Your task to perform on an android device: turn vacation reply on in the gmail app Image 0: 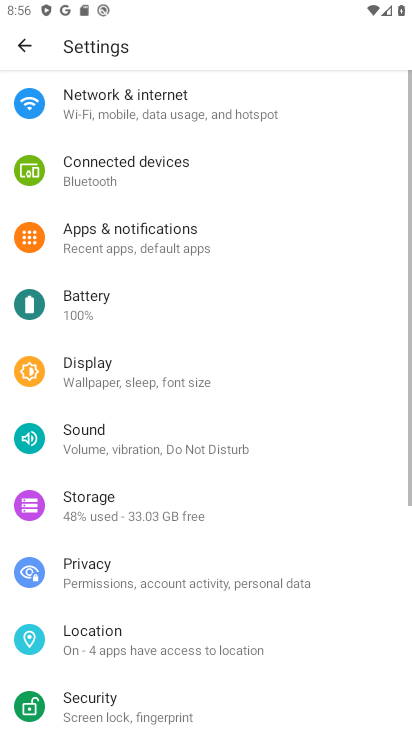
Step 0: press home button
Your task to perform on an android device: turn vacation reply on in the gmail app Image 1: 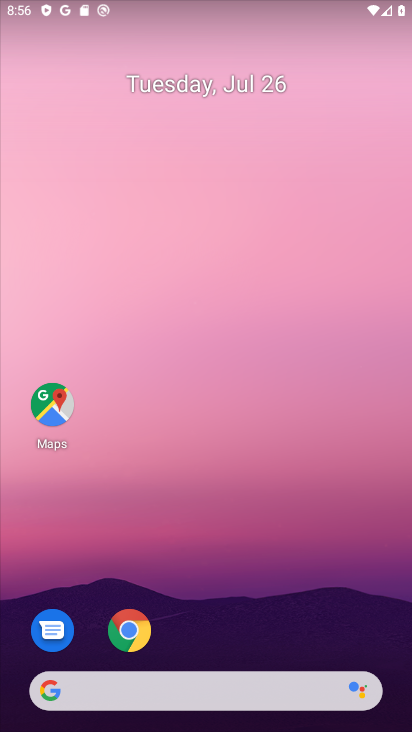
Step 1: drag from (244, 647) to (164, 63)
Your task to perform on an android device: turn vacation reply on in the gmail app Image 2: 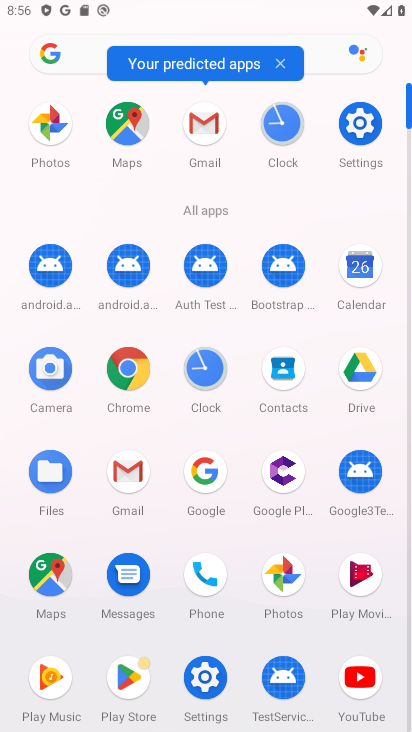
Step 2: click (209, 139)
Your task to perform on an android device: turn vacation reply on in the gmail app Image 3: 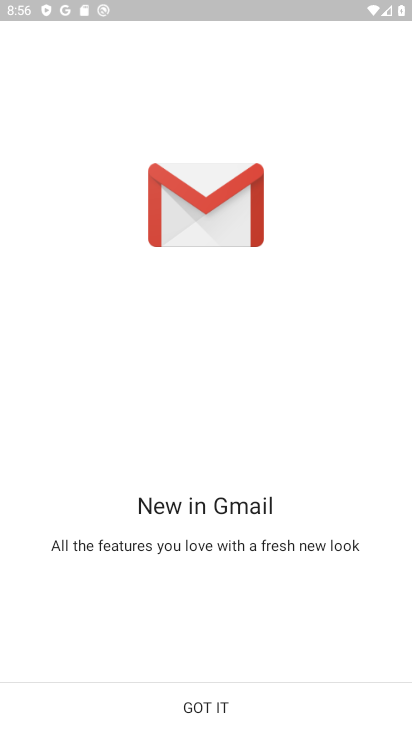
Step 3: click (216, 708)
Your task to perform on an android device: turn vacation reply on in the gmail app Image 4: 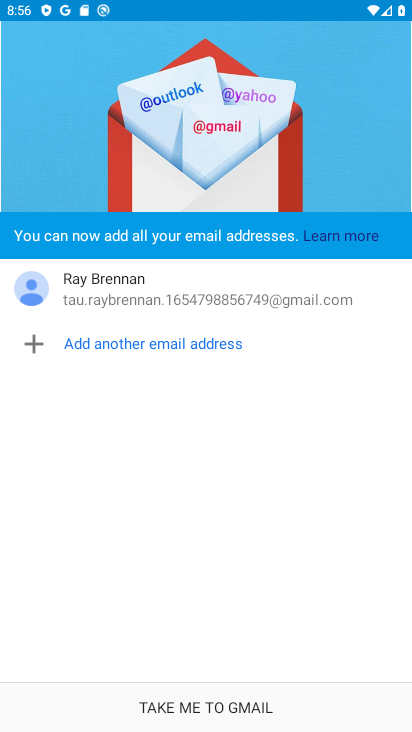
Step 4: click (236, 698)
Your task to perform on an android device: turn vacation reply on in the gmail app Image 5: 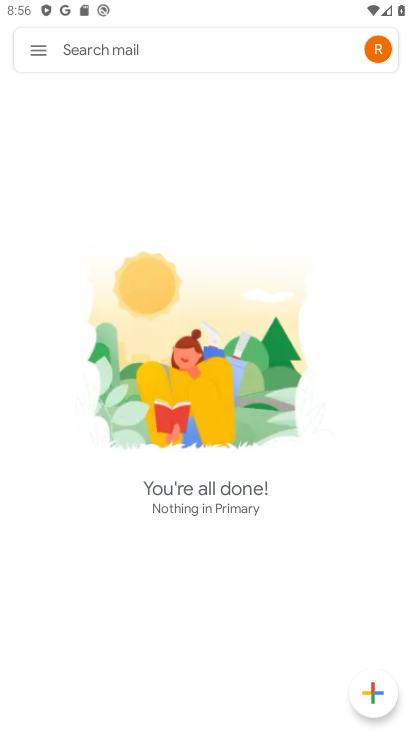
Step 5: click (38, 56)
Your task to perform on an android device: turn vacation reply on in the gmail app Image 6: 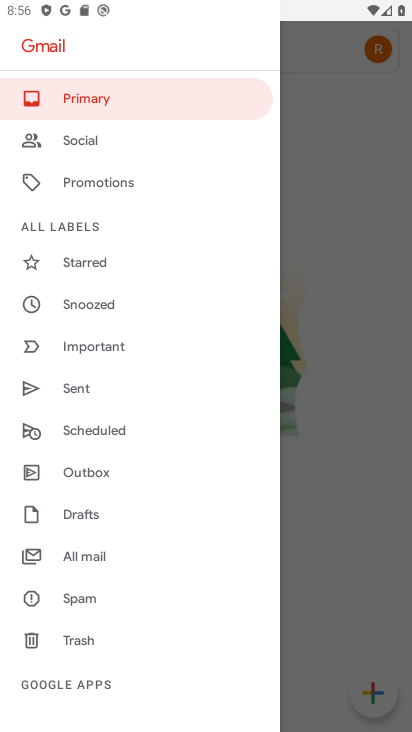
Step 6: drag from (133, 687) to (46, 260)
Your task to perform on an android device: turn vacation reply on in the gmail app Image 7: 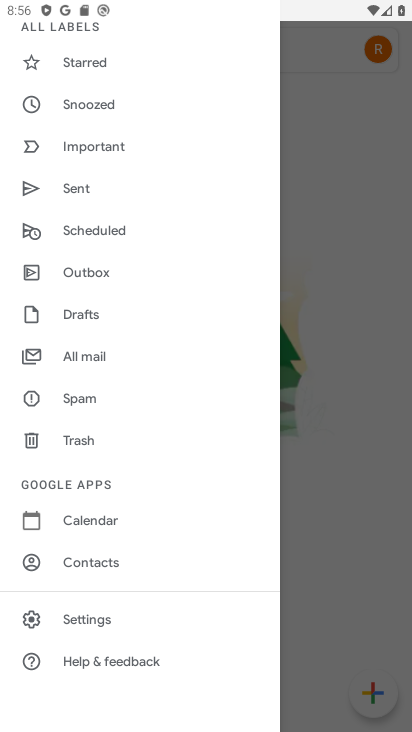
Step 7: click (89, 630)
Your task to perform on an android device: turn vacation reply on in the gmail app Image 8: 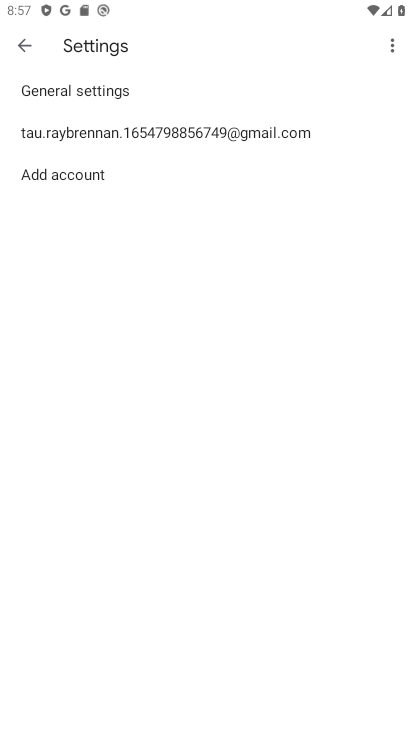
Step 8: click (229, 144)
Your task to perform on an android device: turn vacation reply on in the gmail app Image 9: 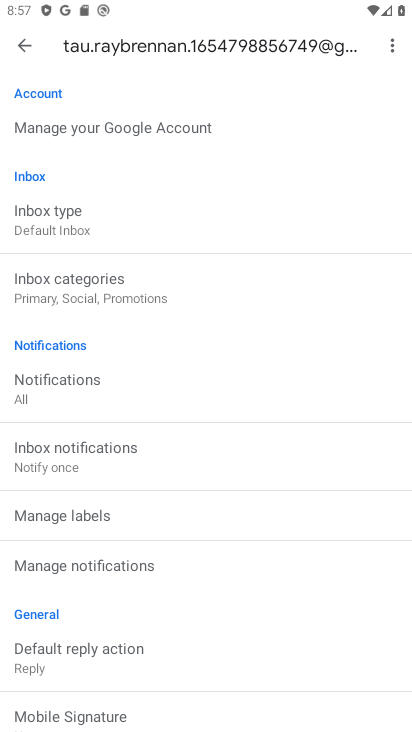
Step 9: drag from (159, 693) to (61, 309)
Your task to perform on an android device: turn vacation reply on in the gmail app Image 10: 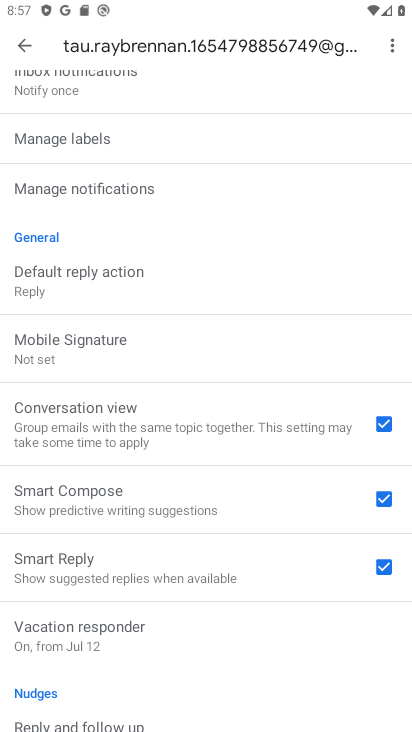
Step 10: click (131, 642)
Your task to perform on an android device: turn vacation reply on in the gmail app Image 11: 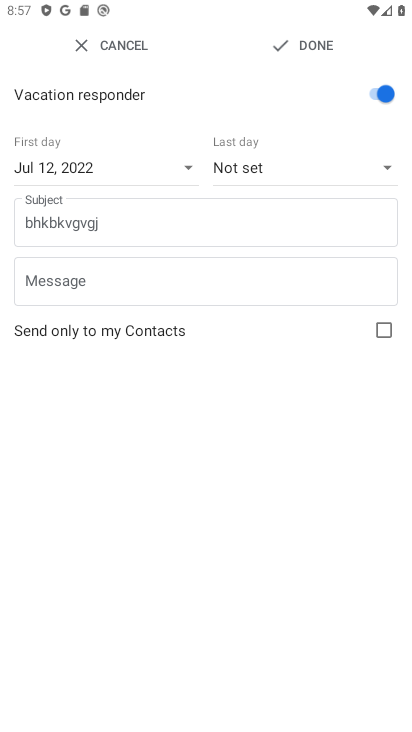
Step 11: click (316, 227)
Your task to perform on an android device: turn vacation reply on in the gmail app Image 12: 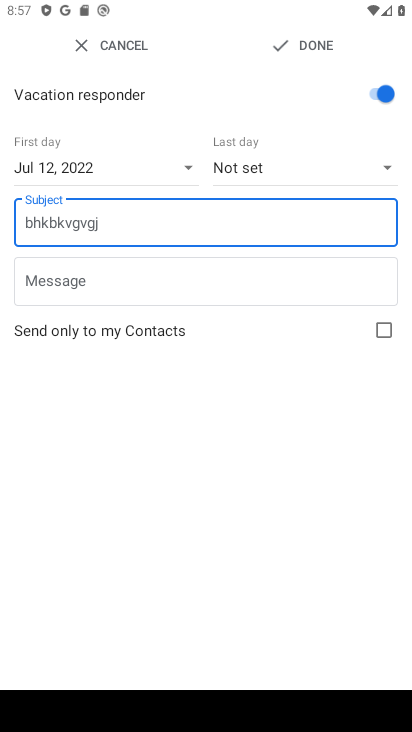
Step 12: type "vjv"
Your task to perform on an android device: turn vacation reply on in the gmail app Image 13: 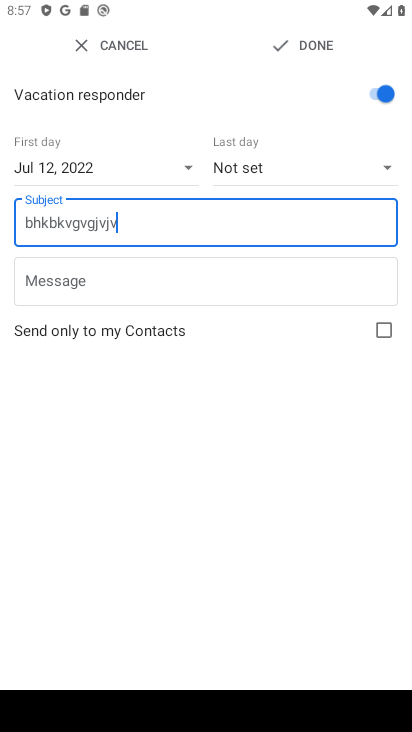
Step 13: click (295, 59)
Your task to perform on an android device: turn vacation reply on in the gmail app Image 14: 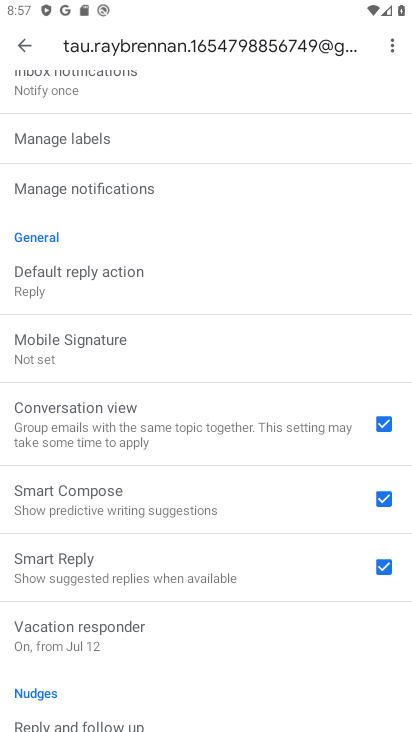
Step 14: task complete